Your task to perform on an android device: open chrome and create a bookmark for the current page Image 0: 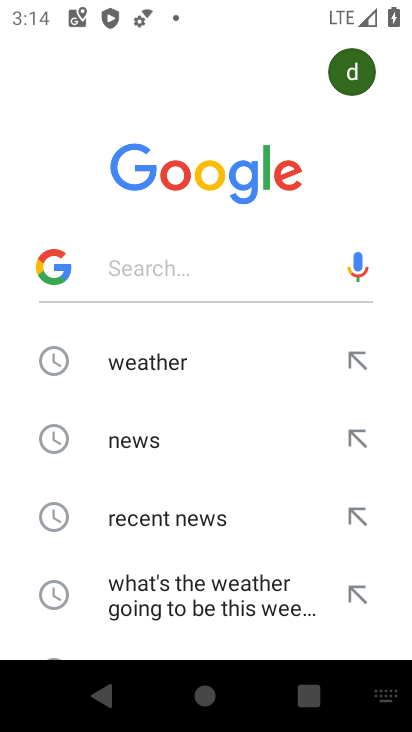
Step 0: press home button
Your task to perform on an android device: open chrome and create a bookmark for the current page Image 1: 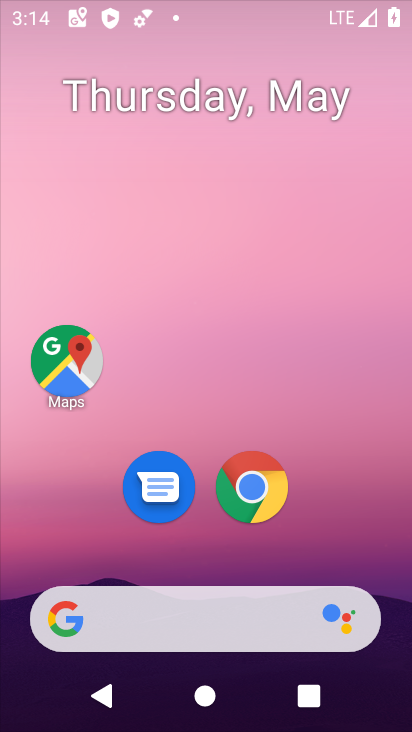
Step 1: drag from (289, 603) to (261, 163)
Your task to perform on an android device: open chrome and create a bookmark for the current page Image 2: 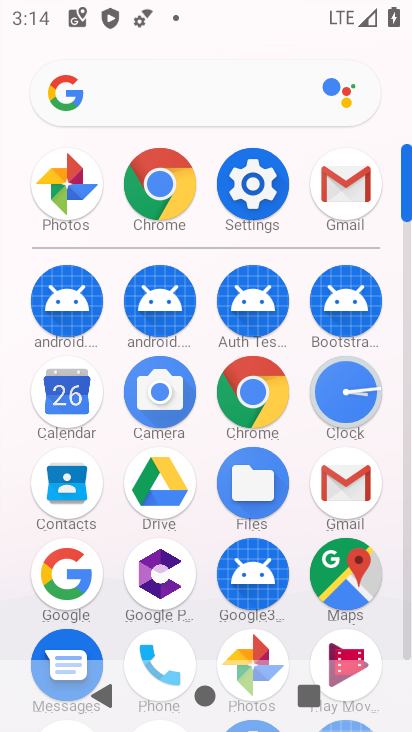
Step 2: click (160, 195)
Your task to perform on an android device: open chrome and create a bookmark for the current page Image 3: 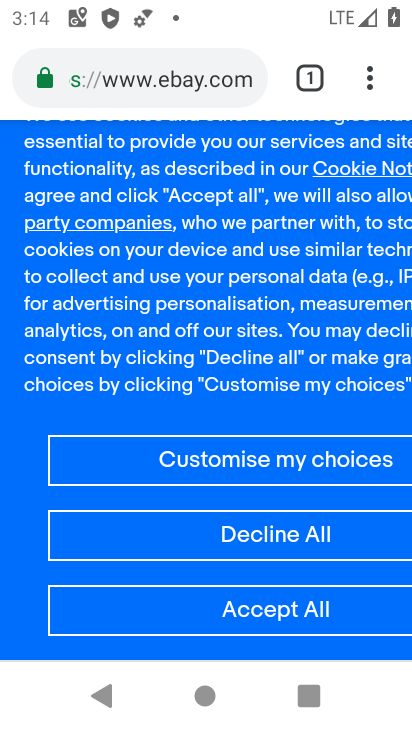
Step 3: click (372, 88)
Your task to perform on an android device: open chrome and create a bookmark for the current page Image 4: 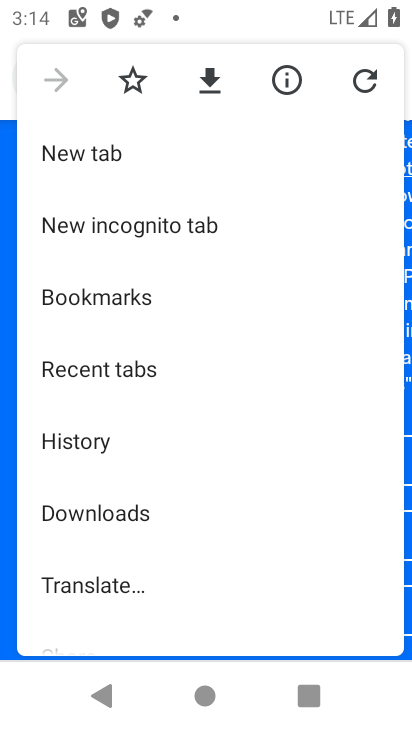
Step 4: click (129, 83)
Your task to perform on an android device: open chrome and create a bookmark for the current page Image 5: 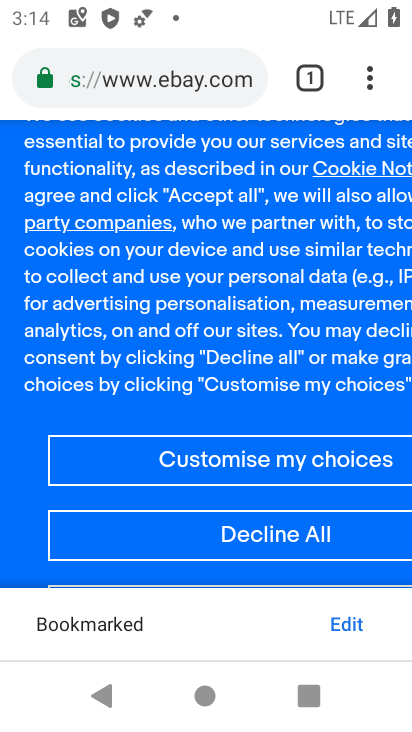
Step 5: task complete